Your task to perform on an android device: uninstall "Google News" Image 0: 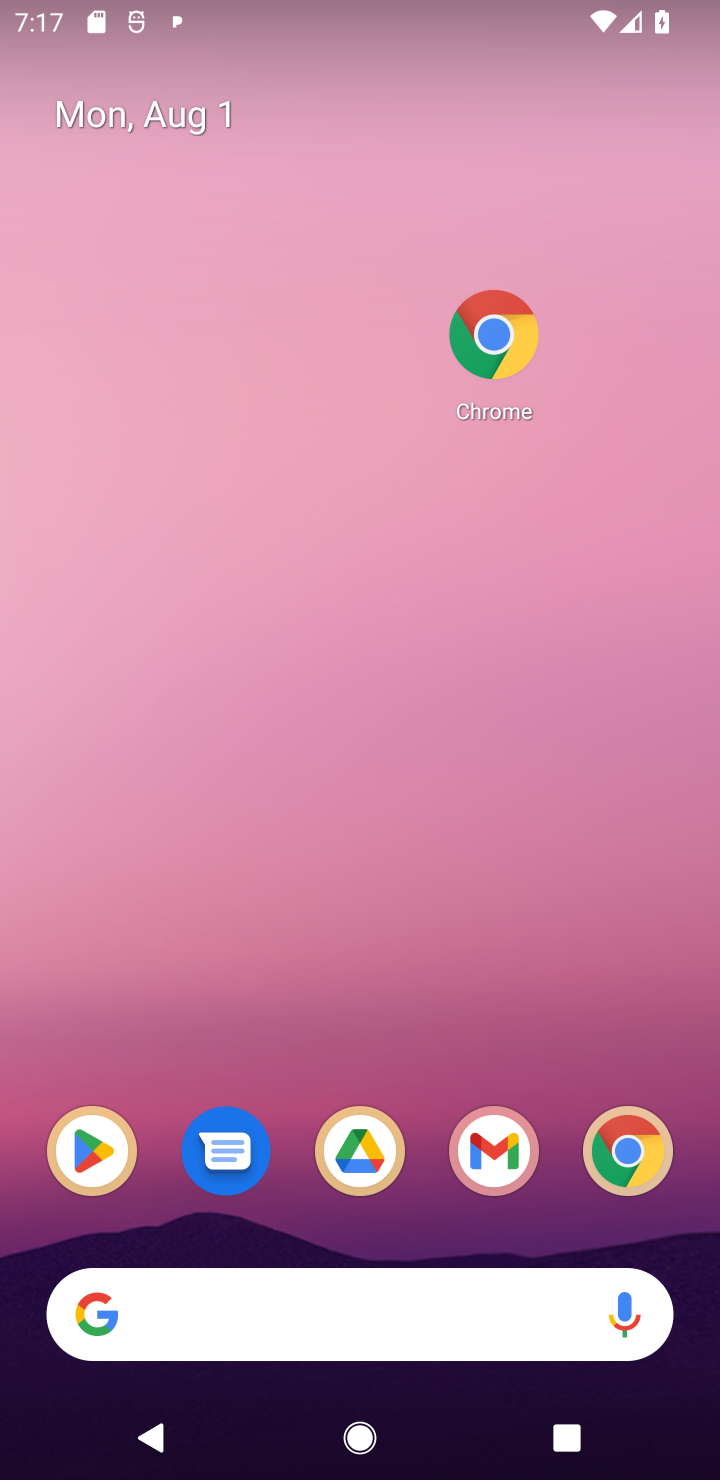
Step 0: click (83, 1169)
Your task to perform on an android device: uninstall "Google News" Image 1: 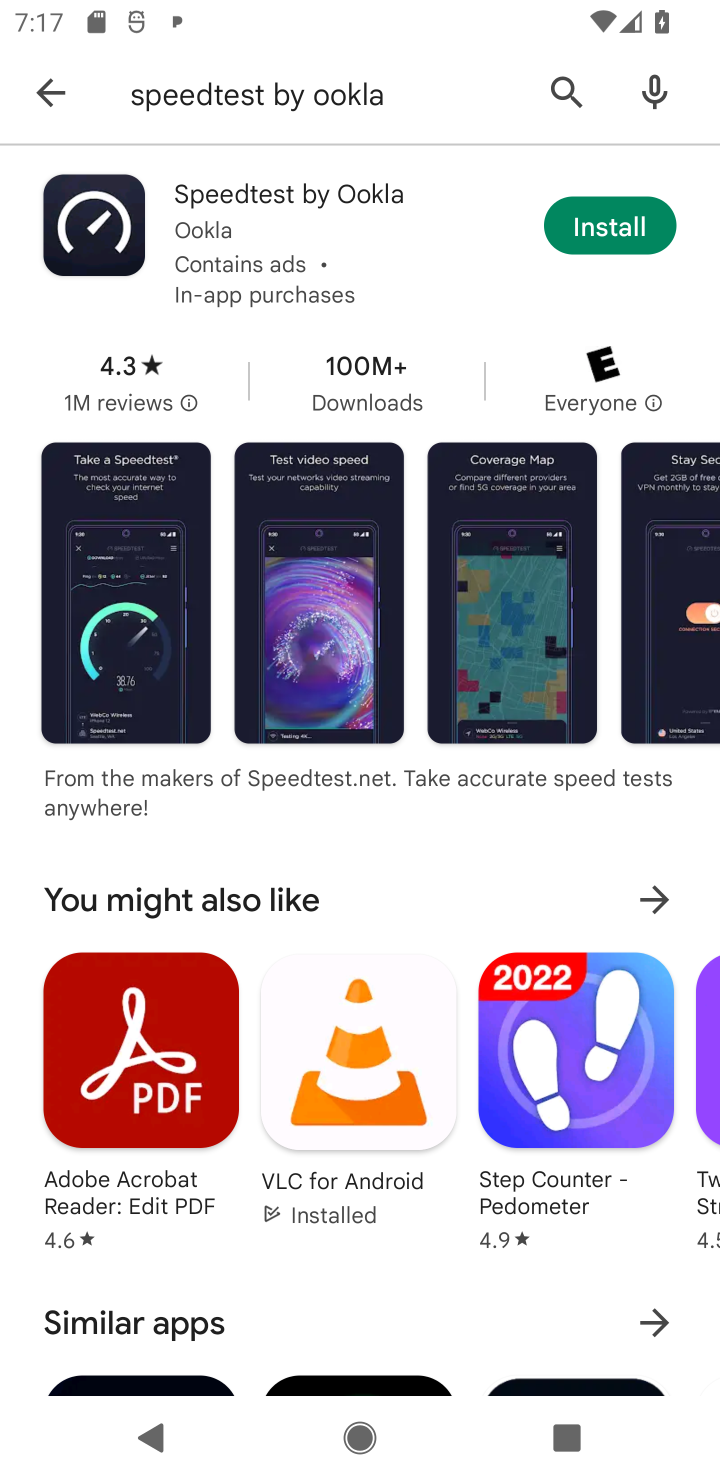
Step 1: click (550, 82)
Your task to perform on an android device: uninstall "Google News" Image 2: 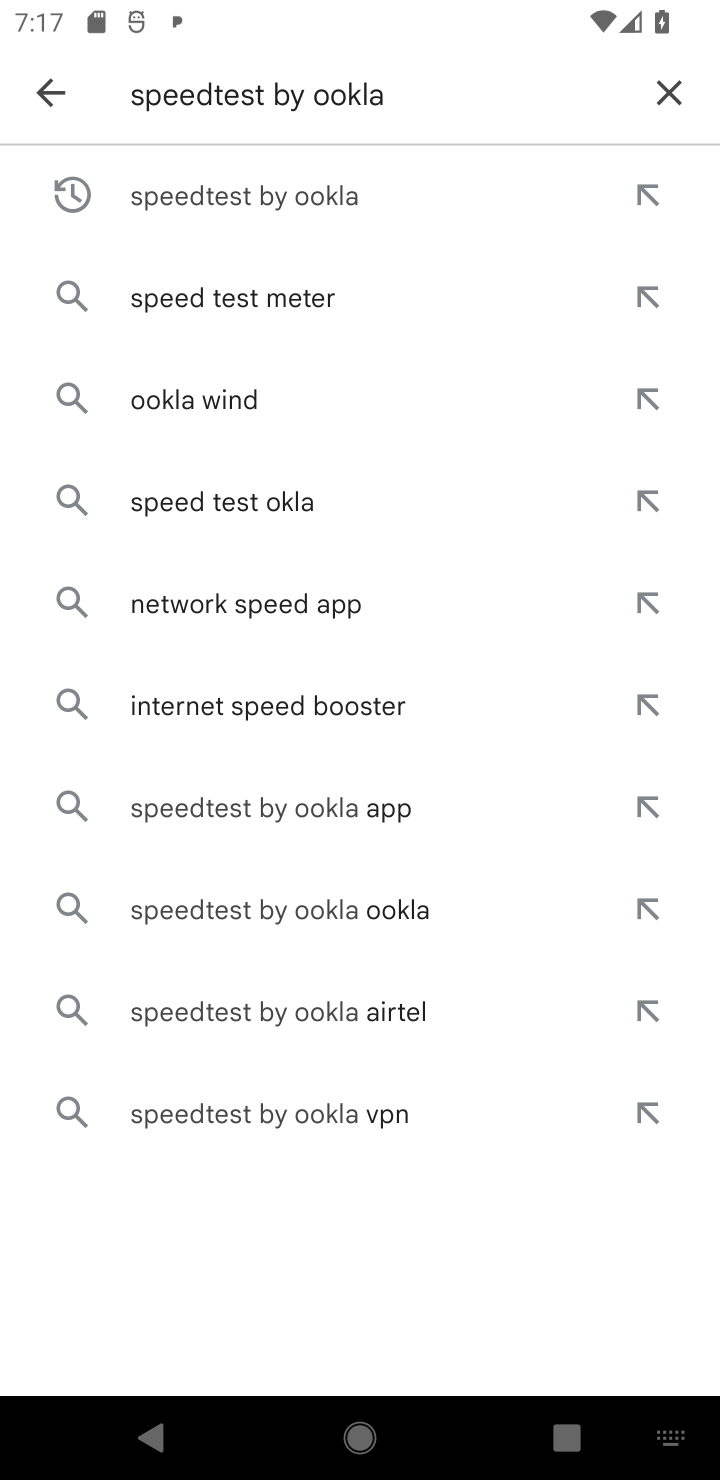
Step 2: click (681, 92)
Your task to perform on an android device: uninstall "Google News" Image 3: 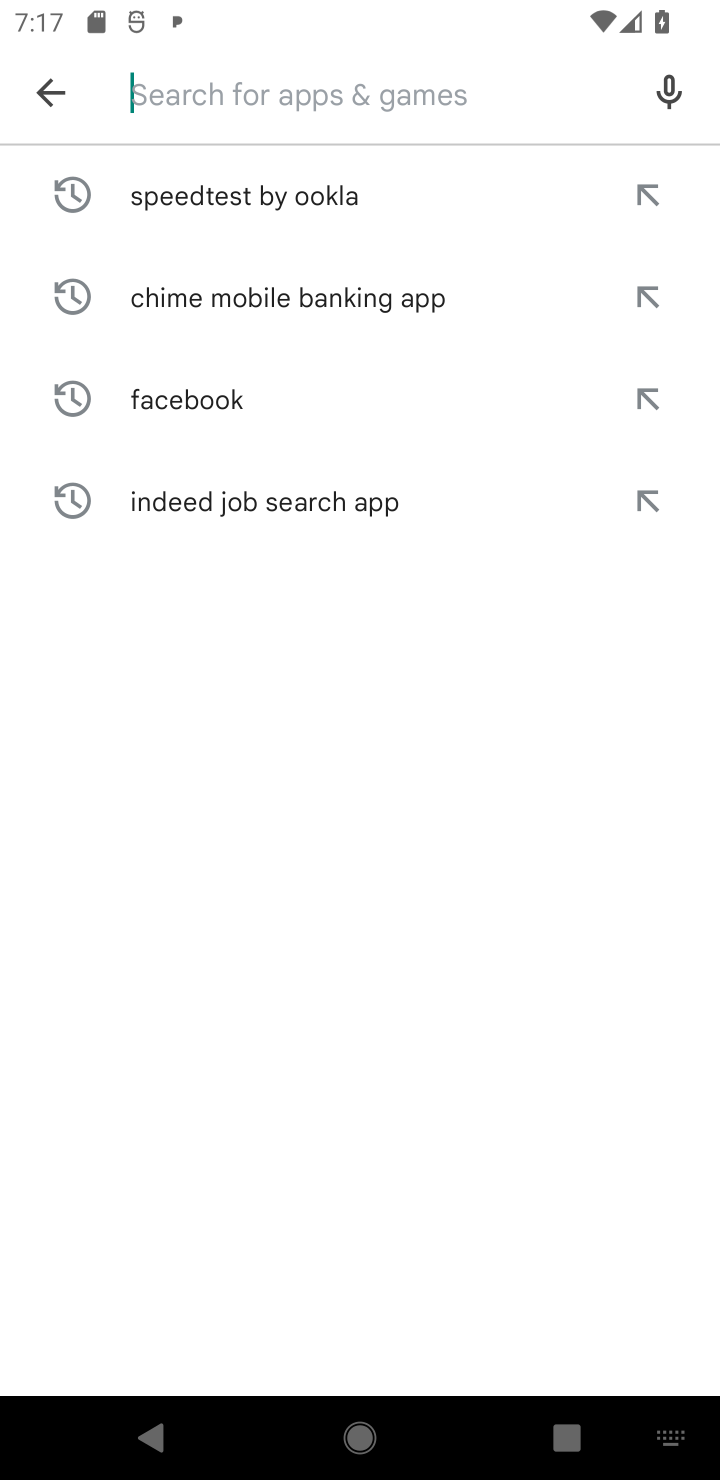
Step 3: type "Google News"
Your task to perform on an android device: uninstall "Google News" Image 4: 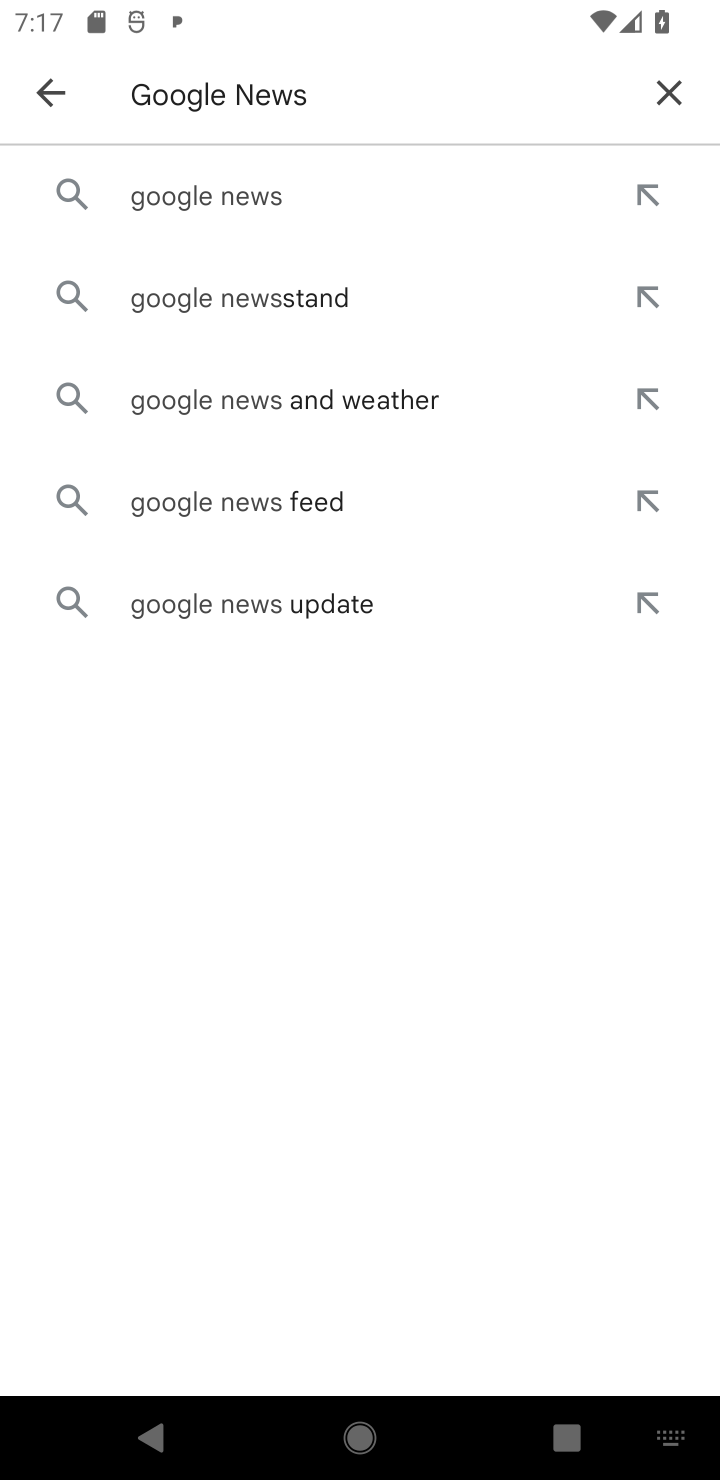
Step 4: click (182, 204)
Your task to perform on an android device: uninstall "Google News" Image 5: 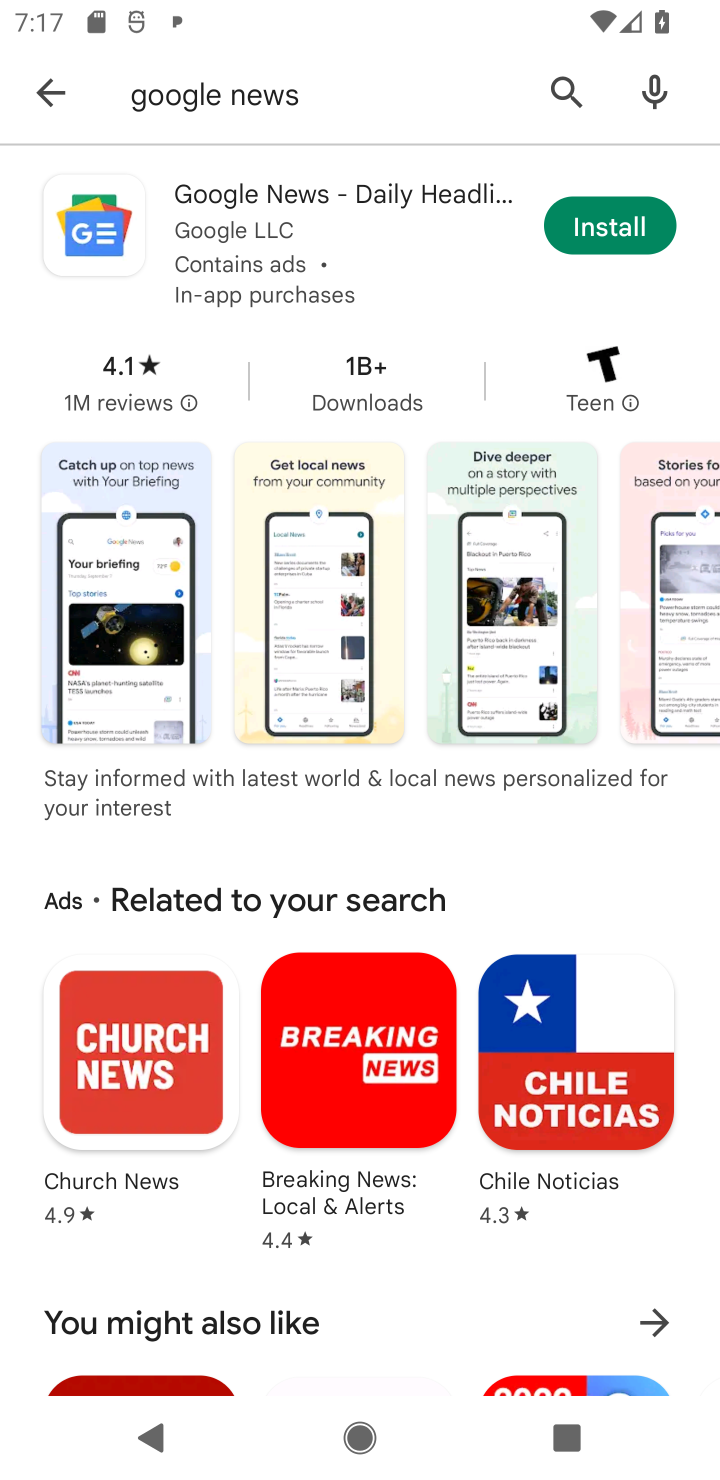
Step 5: task complete